Your task to perform on an android device: check google app version Image 0: 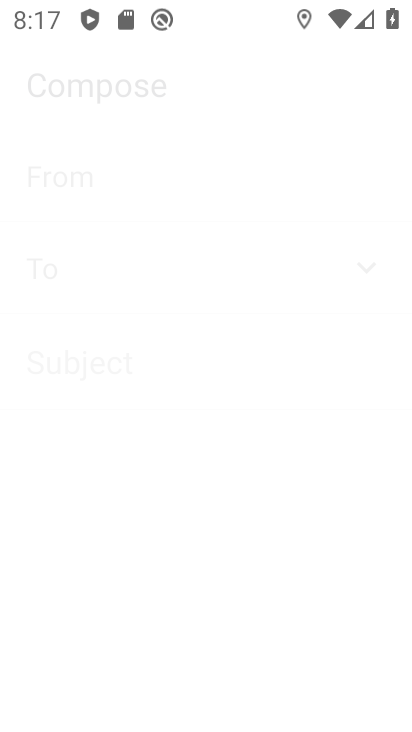
Step 0: click (241, 558)
Your task to perform on an android device: check google app version Image 1: 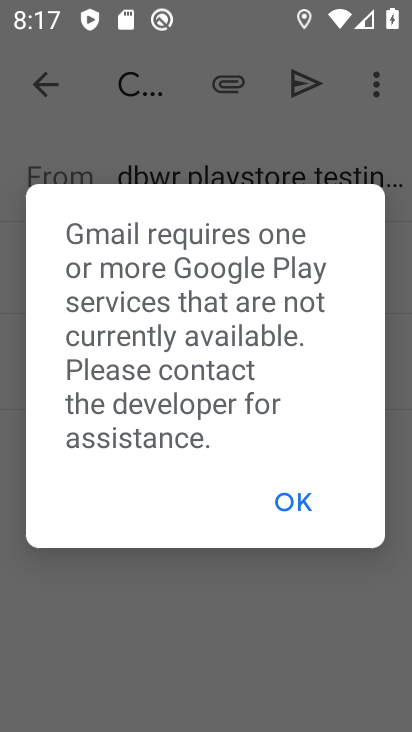
Step 1: press home button
Your task to perform on an android device: check google app version Image 2: 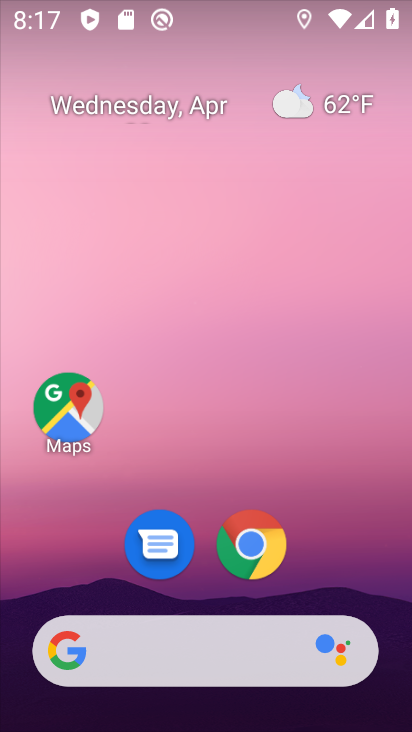
Step 2: drag from (332, 455) to (229, 82)
Your task to perform on an android device: check google app version Image 3: 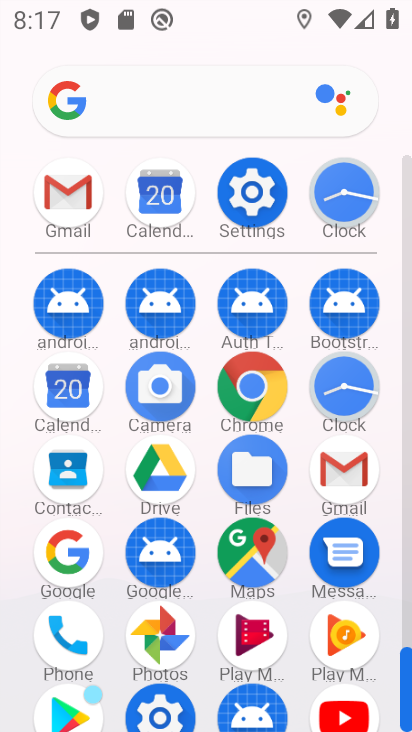
Step 3: click (57, 547)
Your task to perform on an android device: check google app version Image 4: 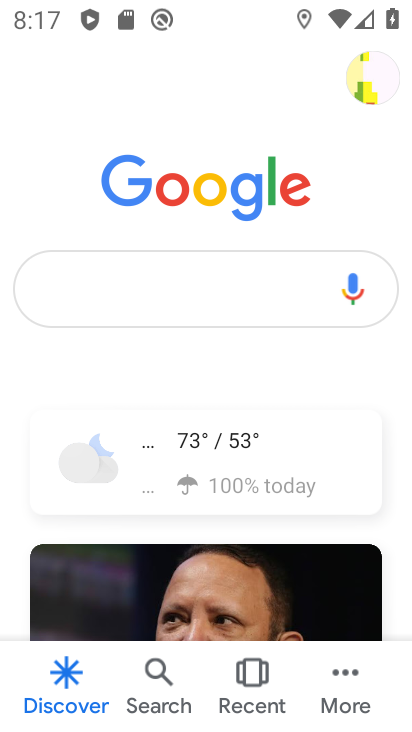
Step 4: click (341, 671)
Your task to perform on an android device: check google app version Image 5: 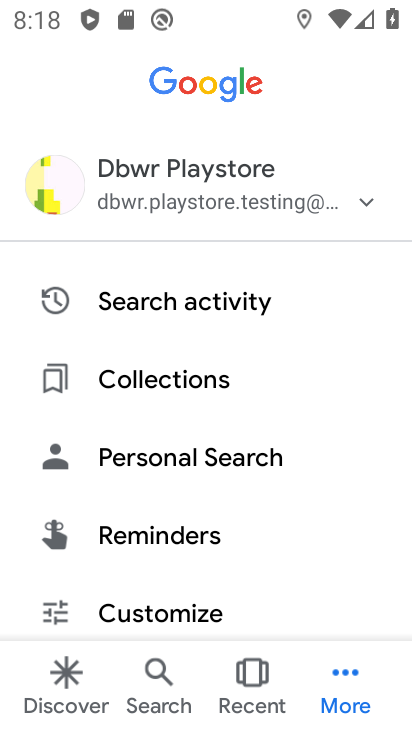
Step 5: drag from (133, 576) to (107, 199)
Your task to perform on an android device: check google app version Image 6: 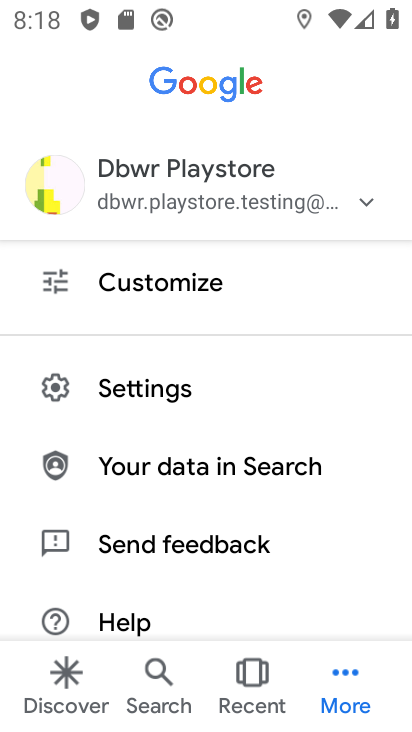
Step 6: click (133, 392)
Your task to perform on an android device: check google app version Image 7: 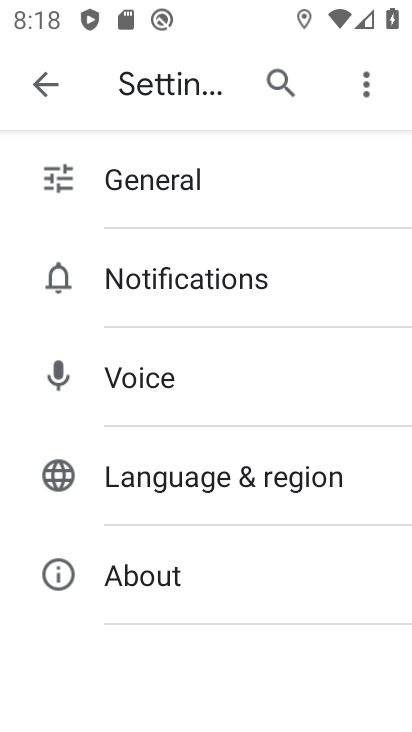
Step 7: click (151, 569)
Your task to perform on an android device: check google app version Image 8: 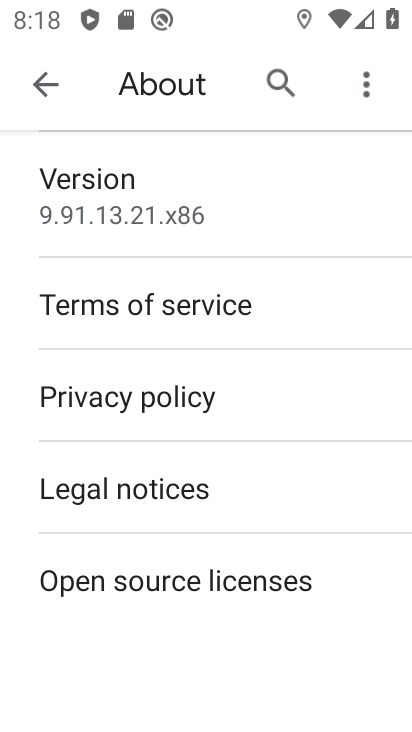
Step 8: click (92, 216)
Your task to perform on an android device: check google app version Image 9: 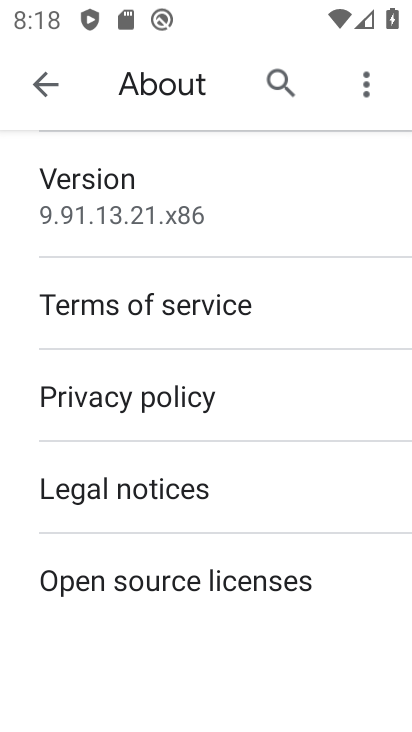
Step 9: task complete